Your task to perform on an android device: empty trash in the gmail app Image 0: 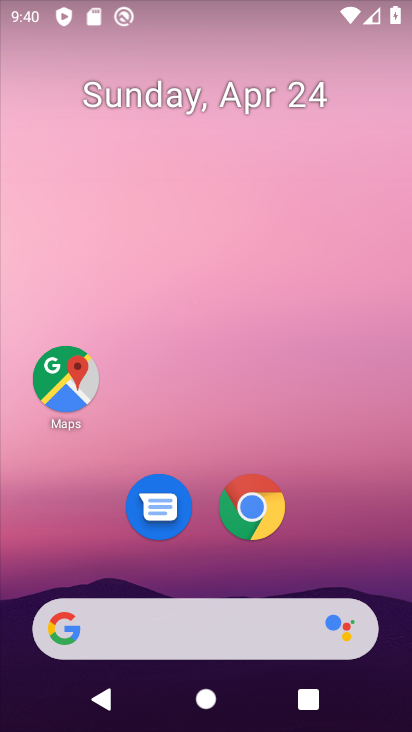
Step 0: click (234, 64)
Your task to perform on an android device: empty trash in the gmail app Image 1: 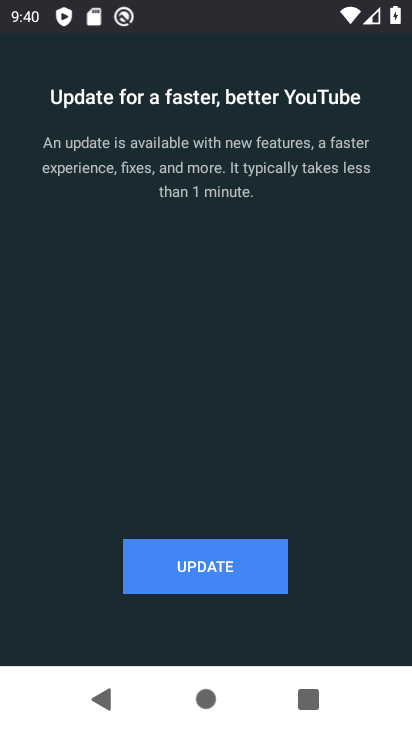
Step 1: press back button
Your task to perform on an android device: empty trash in the gmail app Image 2: 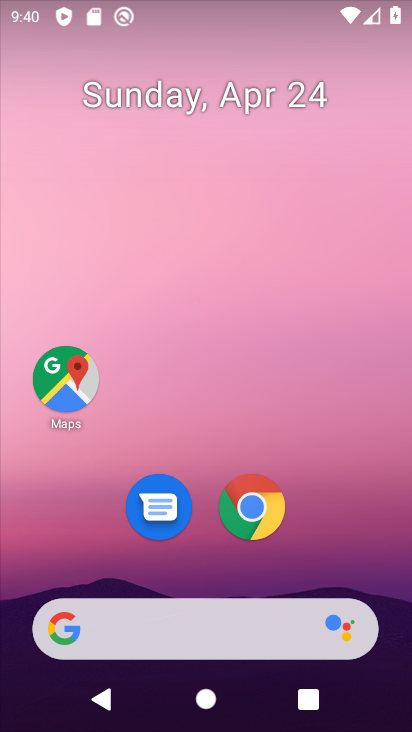
Step 2: drag from (162, 590) to (280, 28)
Your task to perform on an android device: empty trash in the gmail app Image 3: 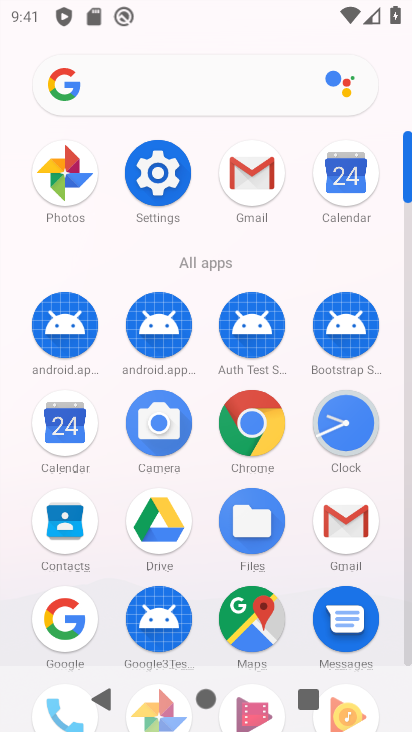
Step 3: click (250, 168)
Your task to perform on an android device: empty trash in the gmail app Image 4: 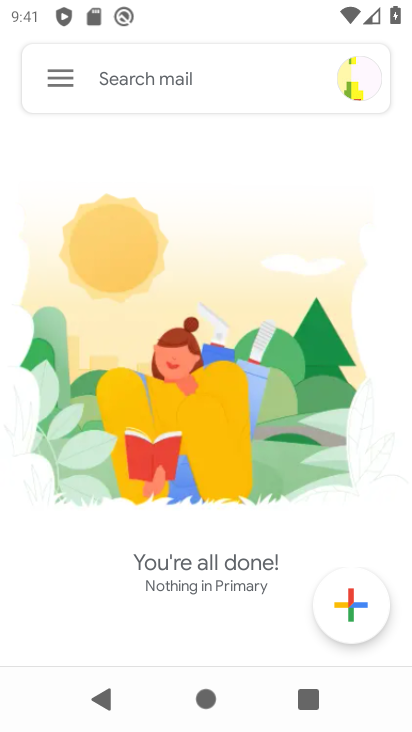
Step 4: click (66, 88)
Your task to perform on an android device: empty trash in the gmail app Image 5: 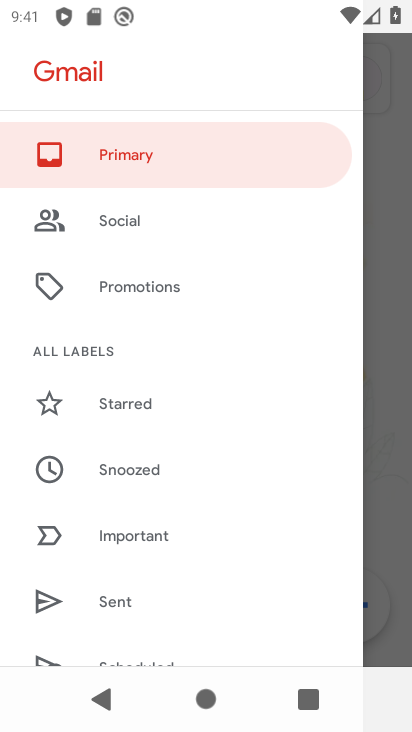
Step 5: drag from (167, 585) to (274, 161)
Your task to perform on an android device: empty trash in the gmail app Image 6: 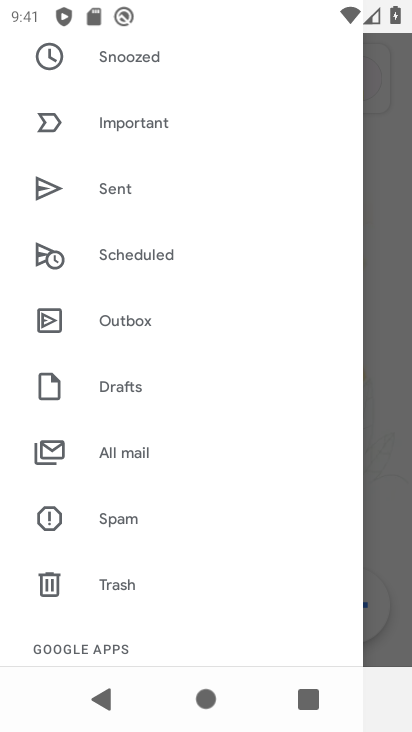
Step 6: click (136, 589)
Your task to perform on an android device: empty trash in the gmail app Image 7: 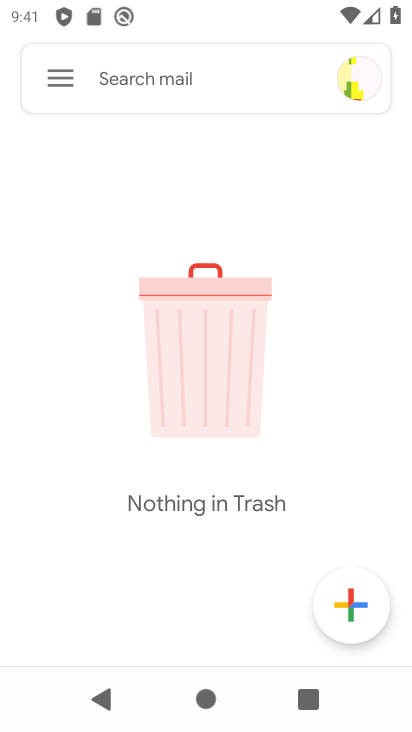
Step 7: task complete